Your task to perform on an android device: toggle priority inbox in the gmail app Image 0: 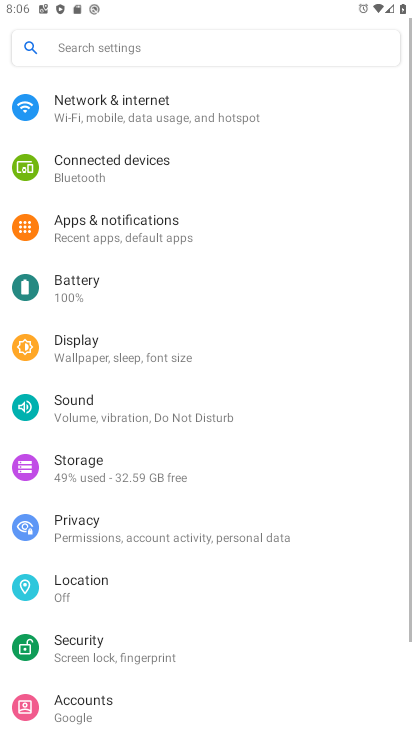
Step 0: drag from (176, 663) to (189, 330)
Your task to perform on an android device: toggle priority inbox in the gmail app Image 1: 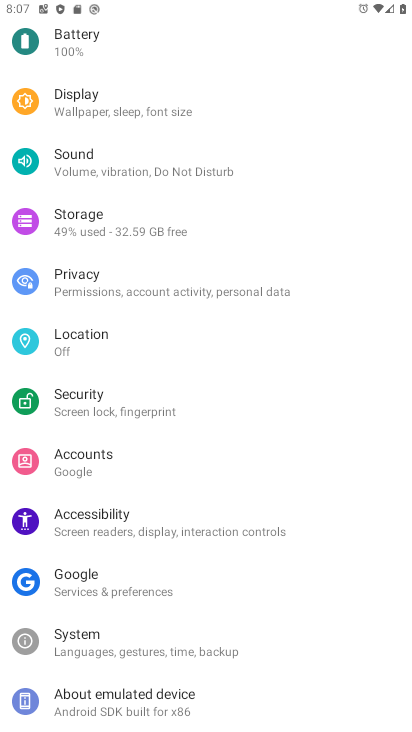
Step 1: press home button
Your task to perform on an android device: toggle priority inbox in the gmail app Image 2: 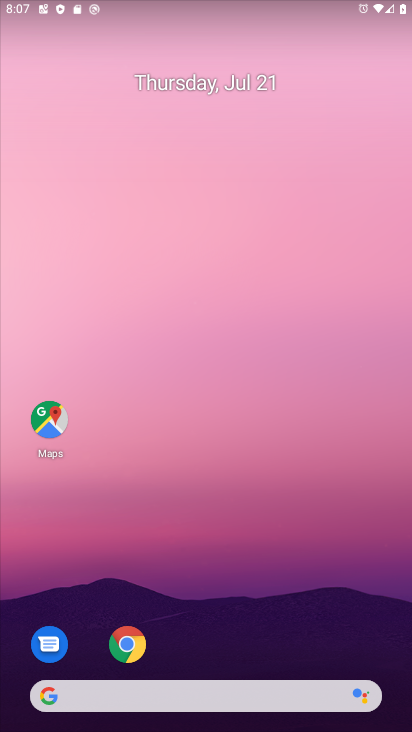
Step 2: drag from (182, 659) to (204, 233)
Your task to perform on an android device: toggle priority inbox in the gmail app Image 3: 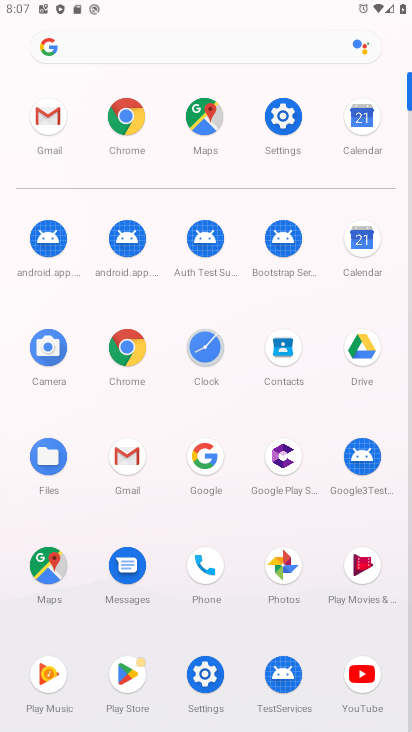
Step 3: click (45, 128)
Your task to perform on an android device: toggle priority inbox in the gmail app Image 4: 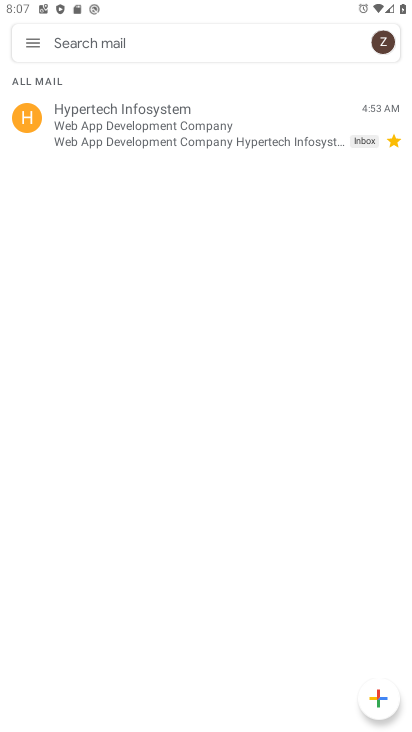
Step 4: click (31, 33)
Your task to perform on an android device: toggle priority inbox in the gmail app Image 5: 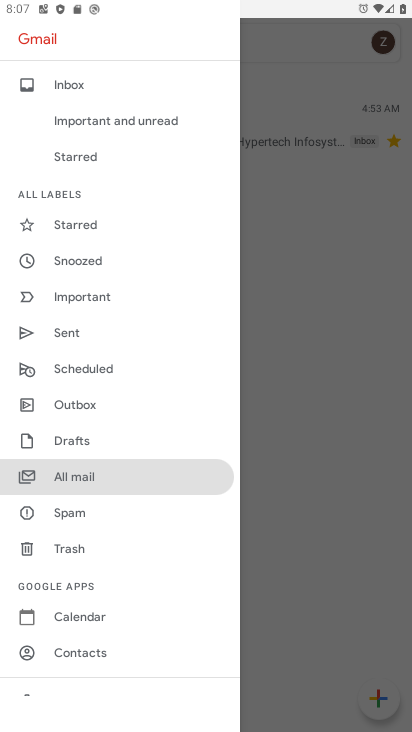
Step 5: drag from (97, 622) to (88, 371)
Your task to perform on an android device: toggle priority inbox in the gmail app Image 6: 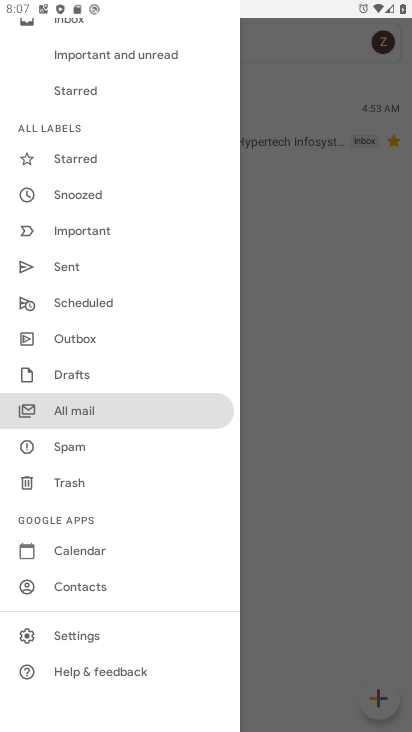
Step 6: click (74, 637)
Your task to perform on an android device: toggle priority inbox in the gmail app Image 7: 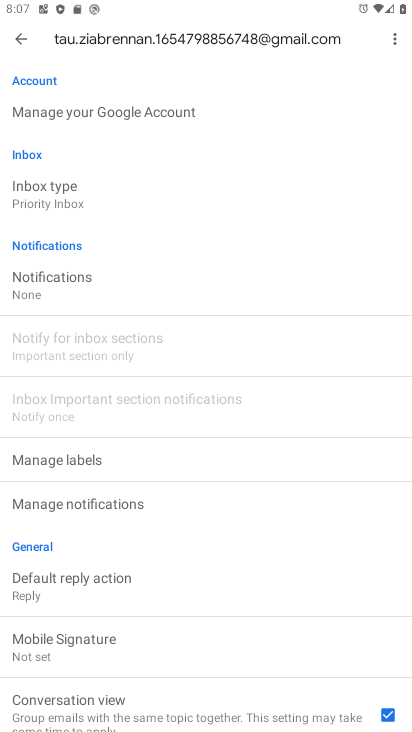
Step 7: click (16, 33)
Your task to perform on an android device: toggle priority inbox in the gmail app Image 8: 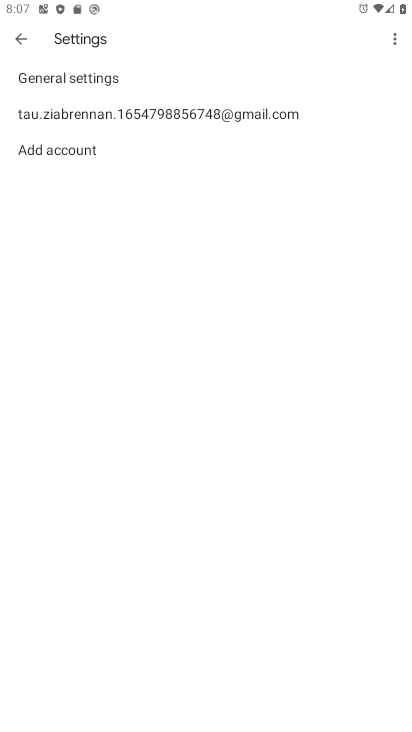
Step 8: click (92, 111)
Your task to perform on an android device: toggle priority inbox in the gmail app Image 9: 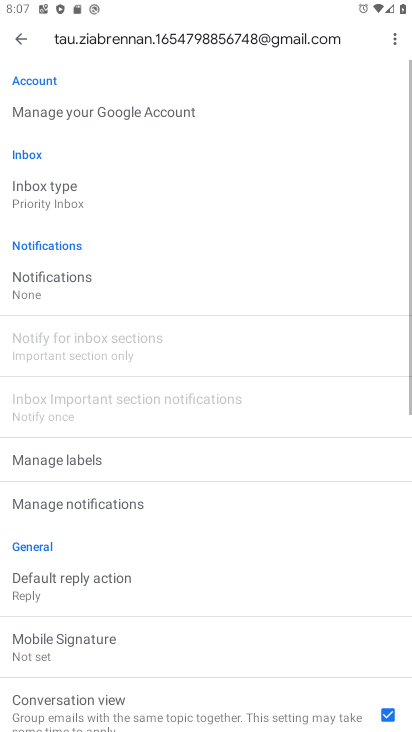
Step 9: click (111, 195)
Your task to perform on an android device: toggle priority inbox in the gmail app Image 10: 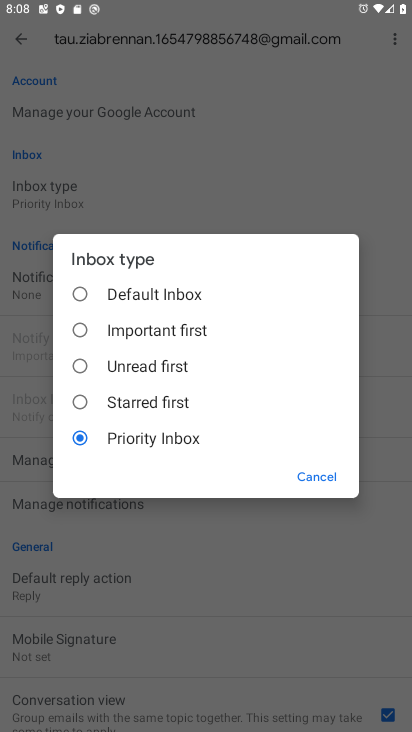
Step 10: click (156, 286)
Your task to perform on an android device: toggle priority inbox in the gmail app Image 11: 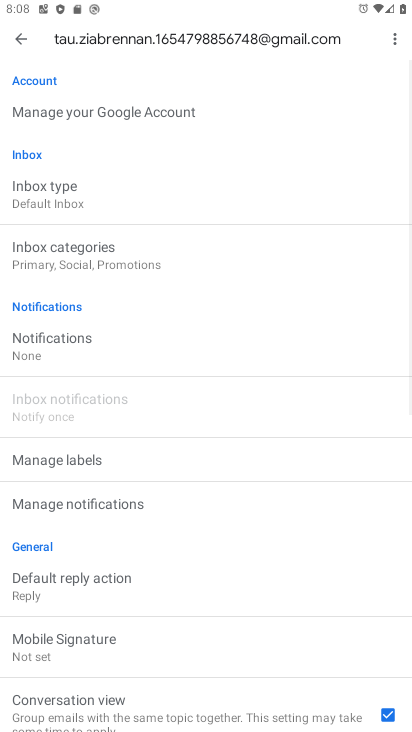
Step 11: task complete